Your task to perform on an android device: What's the news in Jamaica? Image 0: 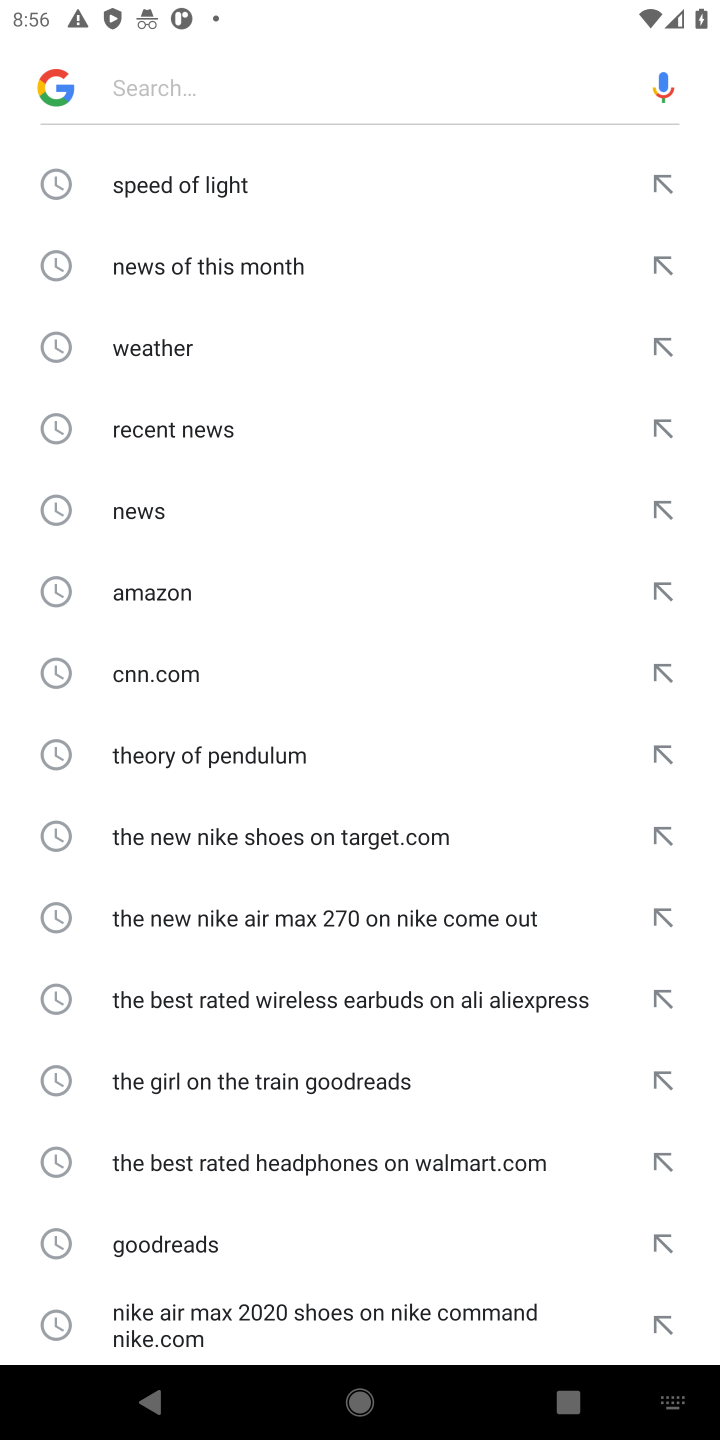
Step 0: type "news in Jamaica"
Your task to perform on an android device: What's the news in Jamaica? Image 1: 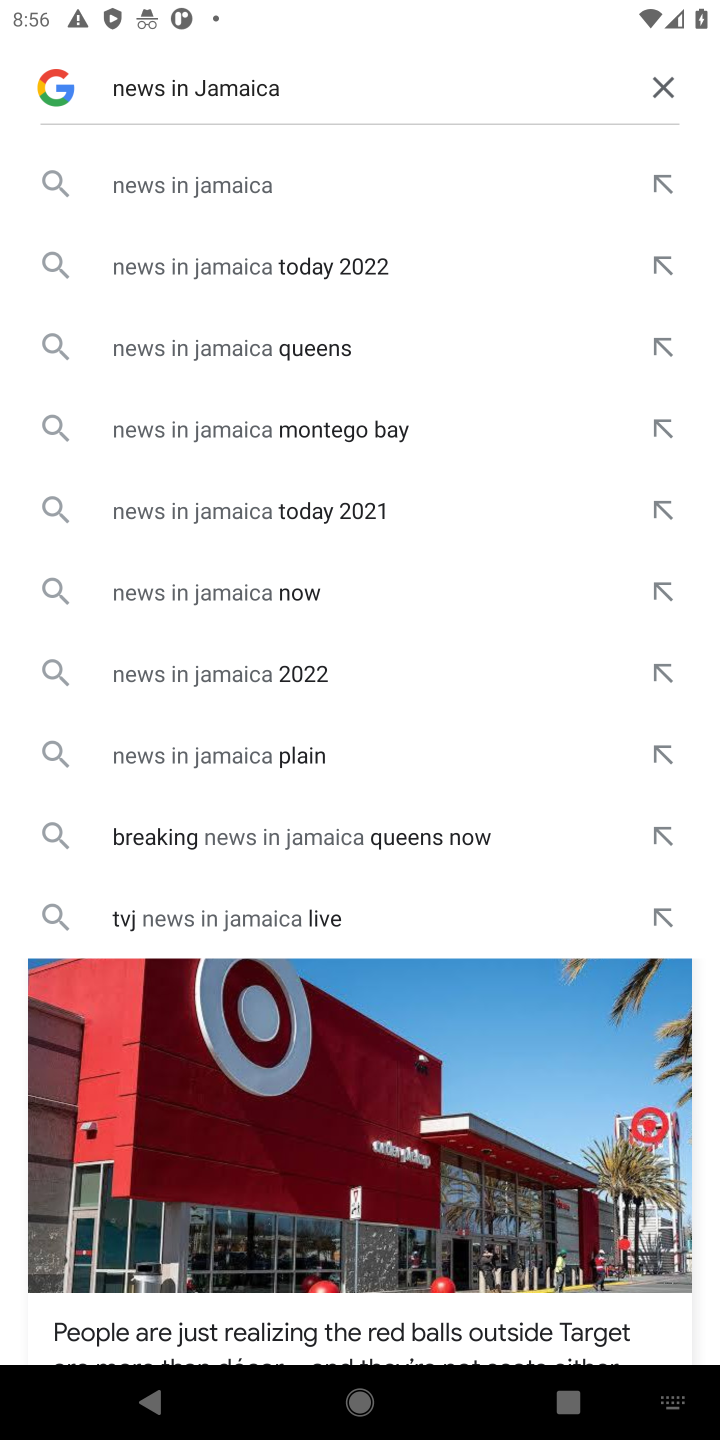
Step 1: click (203, 182)
Your task to perform on an android device: What's the news in Jamaica? Image 2: 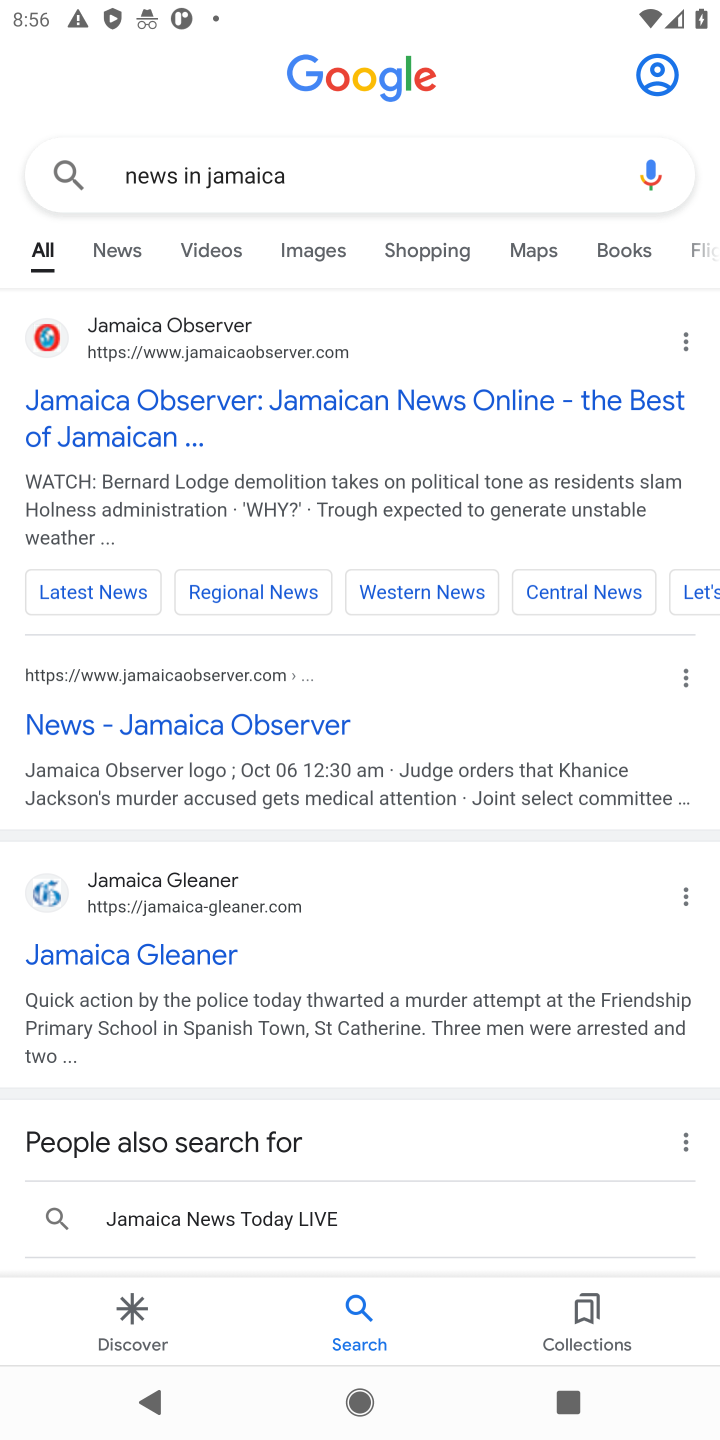
Step 2: click (109, 241)
Your task to perform on an android device: What's the news in Jamaica? Image 3: 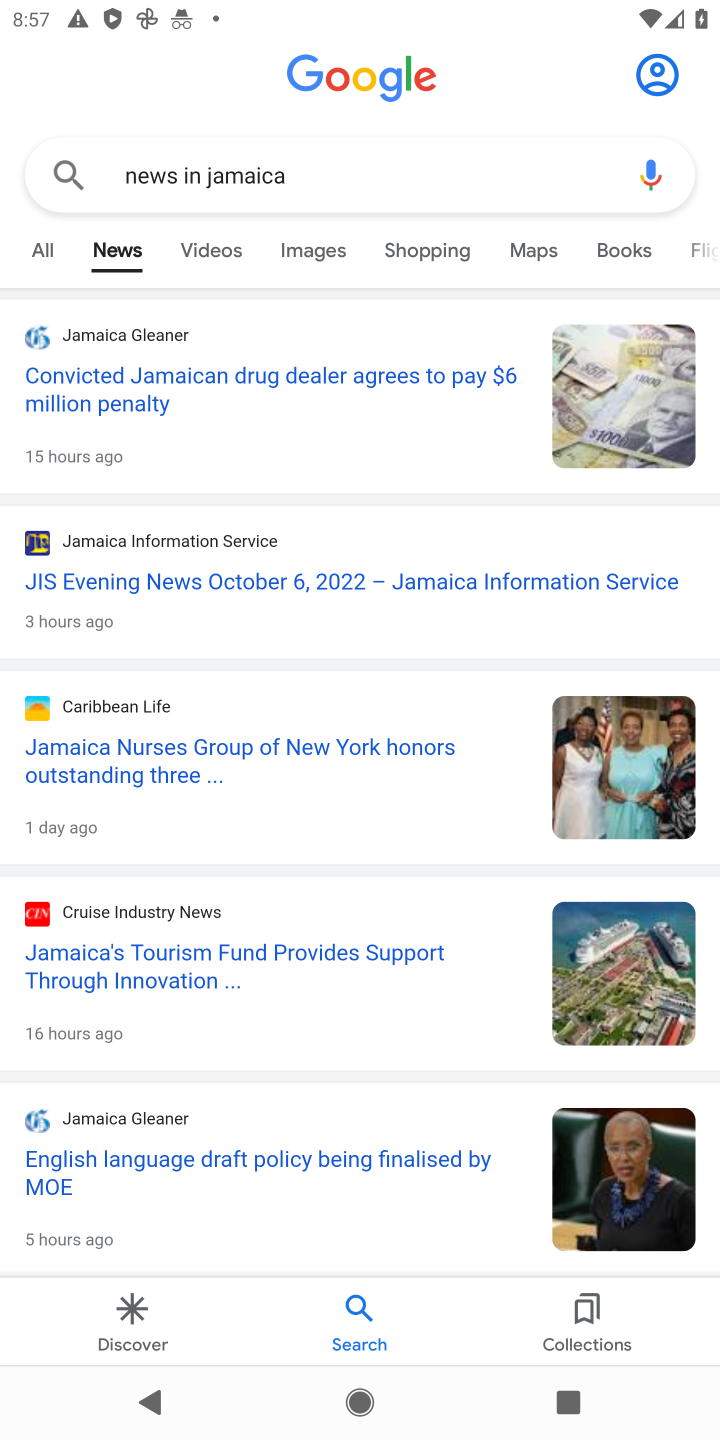
Step 3: task complete